Your task to perform on an android device: create a new album in the google photos Image 0: 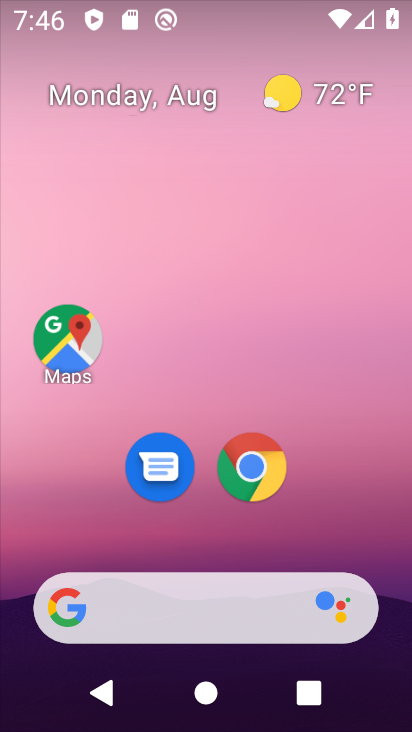
Step 0: press home button
Your task to perform on an android device: create a new album in the google photos Image 1: 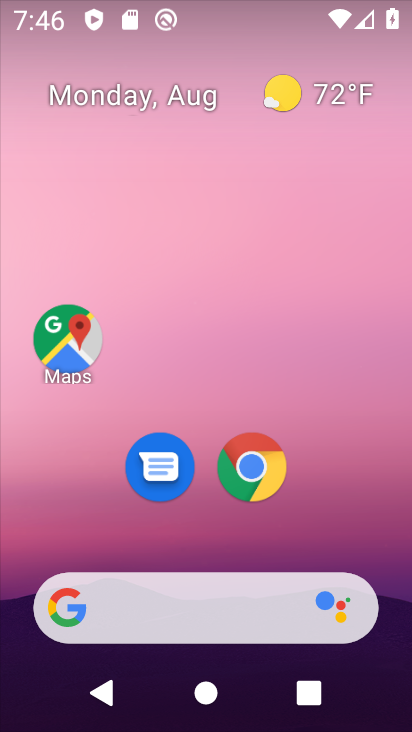
Step 1: drag from (354, 535) to (394, 145)
Your task to perform on an android device: create a new album in the google photos Image 2: 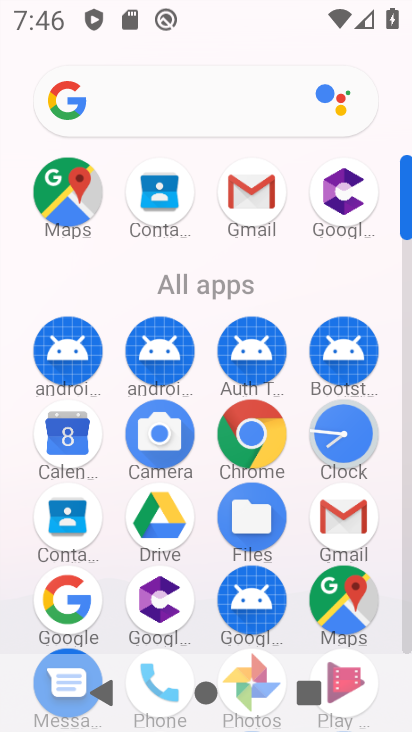
Step 2: drag from (388, 483) to (410, 328)
Your task to perform on an android device: create a new album in the google photos Image 3: 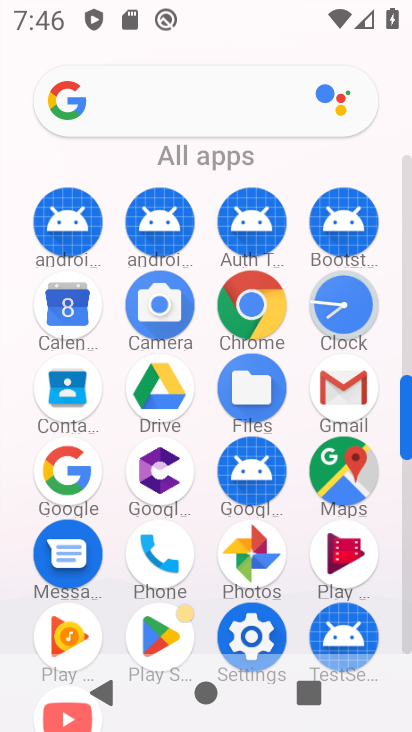
Step 3: click (245, 556)
Your task to perform on an android device: create a new album in the google photos Image 4: 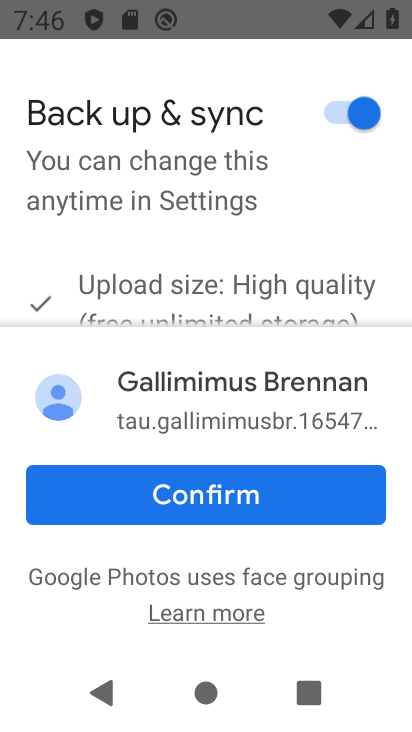
Step 4: click (349, 491)
Your task to perform on an android device: create a new album in the google photos Image 5: 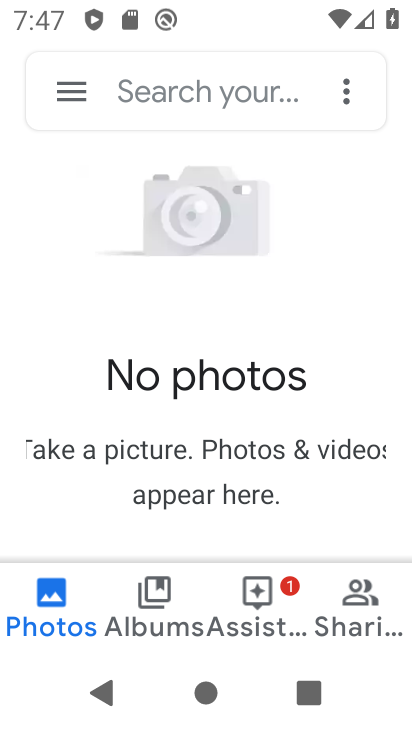
Step 5: click (348, 93)
Your task to perform on an android device: create a new album in the google photos Image 6: 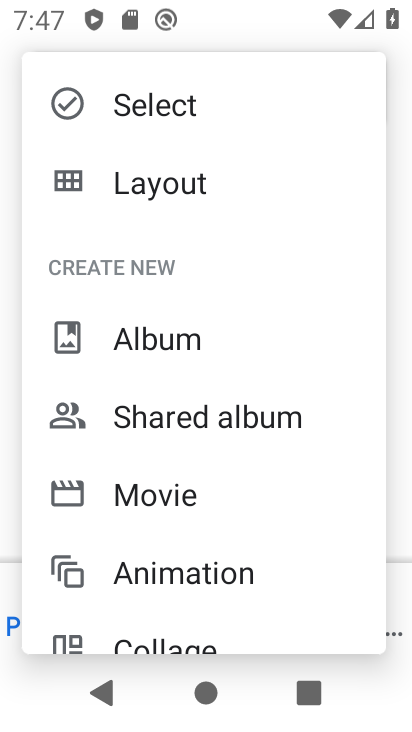
Step 6: click (177, 341)
Your task to perform on an android device: create a new album in the google photos Image 7: 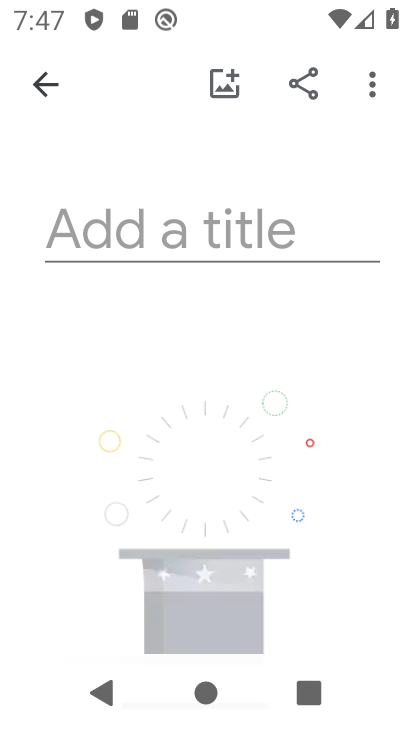
Step 7: click (226, 236)
Your task to perform on an android device: create a new album in the google photos Image 8: 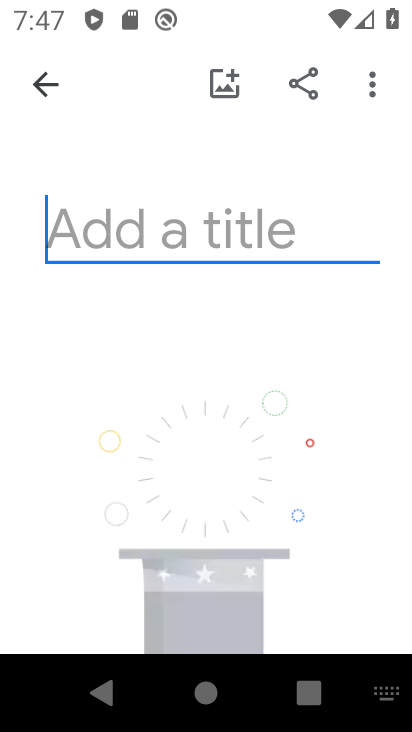
Step 8: type "fav"
Your task to perform on an android device: create a new album in the google photos Image 9: 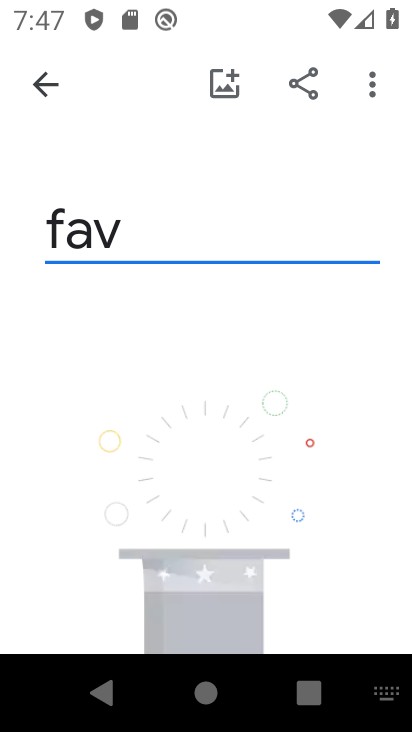
Step 9: drag from (322, 499) to (335, 298)
Your task to perform on an android device: create a new album in the google photos Image 10: 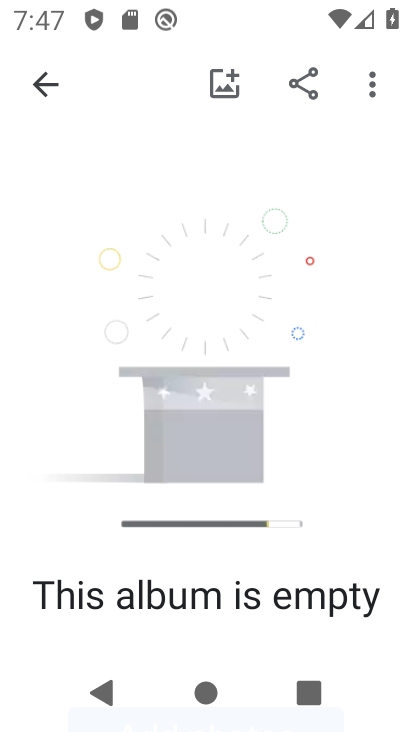
Step 10: drag from (264, 553) to (286, 225)
Your task to perform on an android device: create a new album in the google photos Image 11: 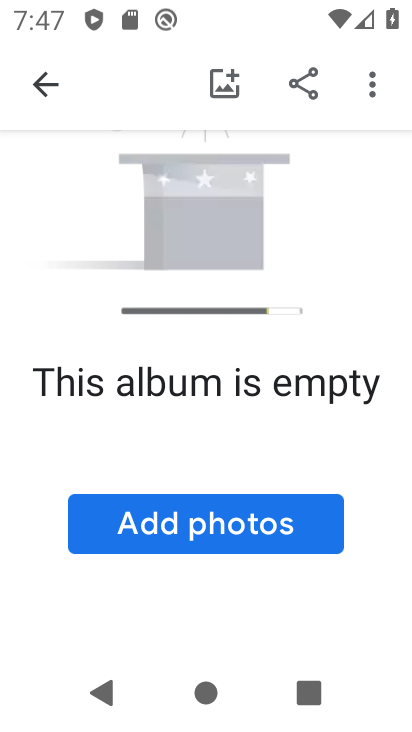
Step 11: click (240, 525)
Your task to perform on an android device: create a new album in the google photos Image 12: 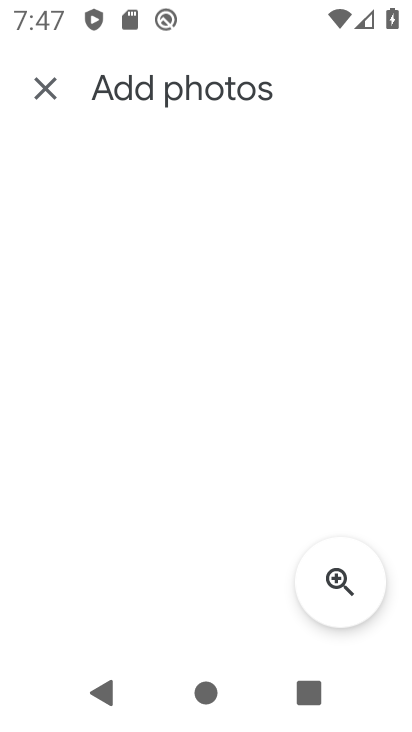
Step 12: task complete